Your task to perform on an android device: make emails show in primary in the gmail app Image 0: 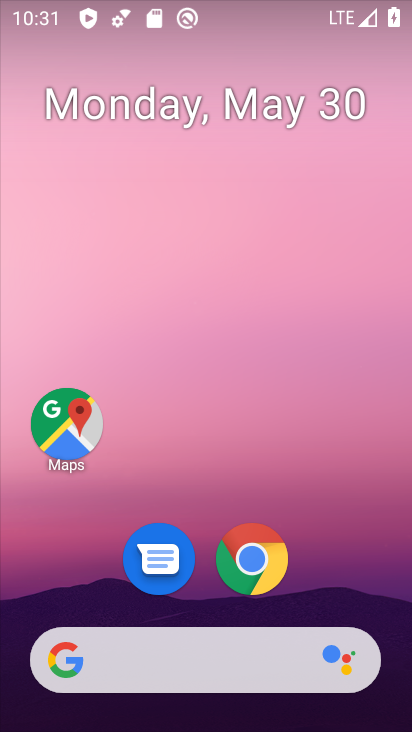
Step 0: drag from (386, 584) to (316, 204)
Your task to perform on an android device: make emails show in primary in the gmail app Image 1: 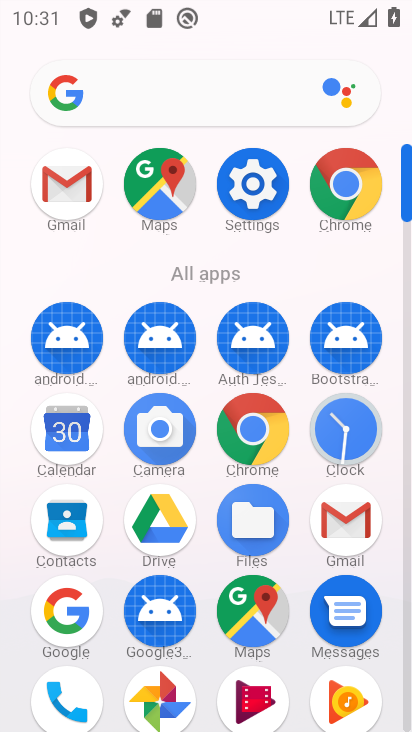
Step 1: click (86, 198)
Your task to perform on an android device: make emails show in primary in the gmail app Image 2: 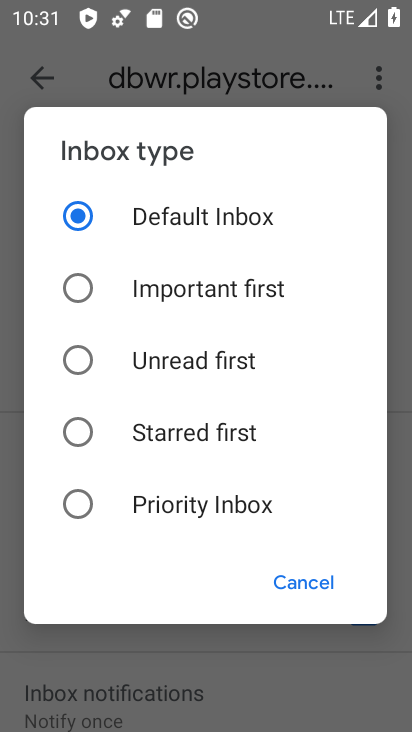
Step 2: click (220, 225)
Your task to perform on an android device: make emails show in primary in the gmail app Image 3: 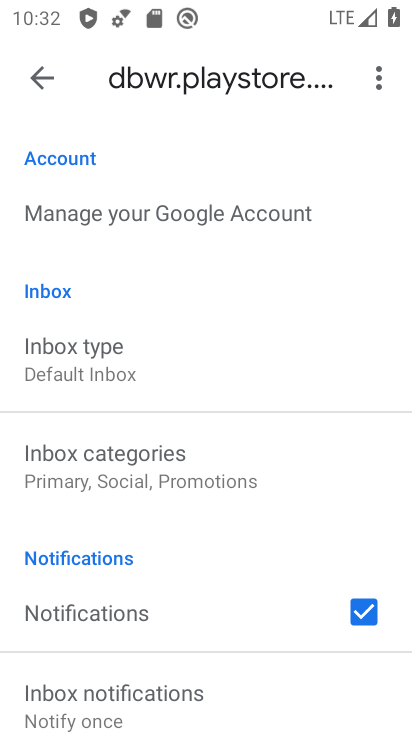
Step 3: task complete